Your task to perform on an android device: turn on wifi Image 0: 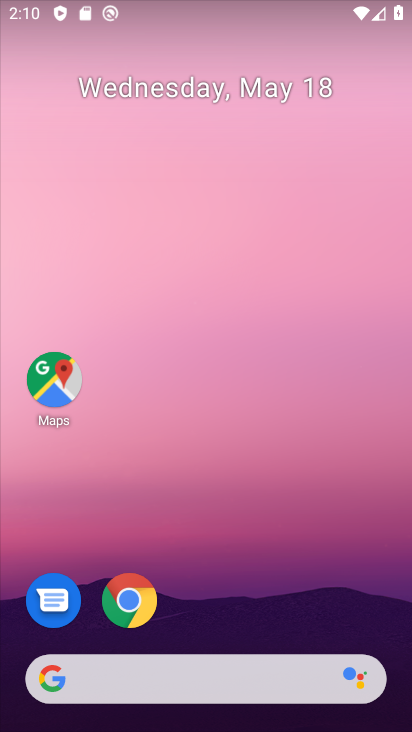
Step 0: press home button
Your task to perform on an android device: turn on wifi Image 1: 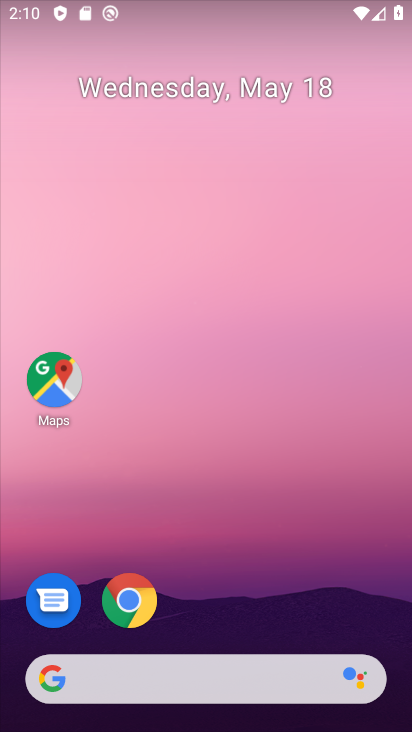
Step 1: drag from (171, 685) to (306, 112)
Your task to perform on an android device: turn on wifi Image 2: 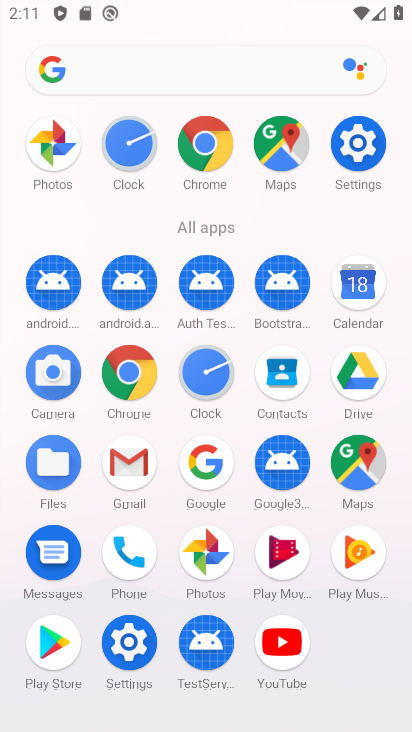
Step 2: click (364, 158)
Your task to perform on an android device: turn on wifi Image 3: 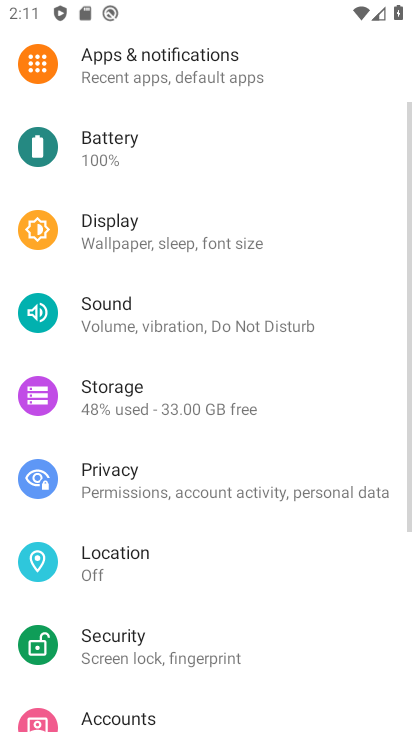
Step 3: drag from (324, 150) to (255, 635)
Your task to perform on an android device: turn on wifi Image 4: 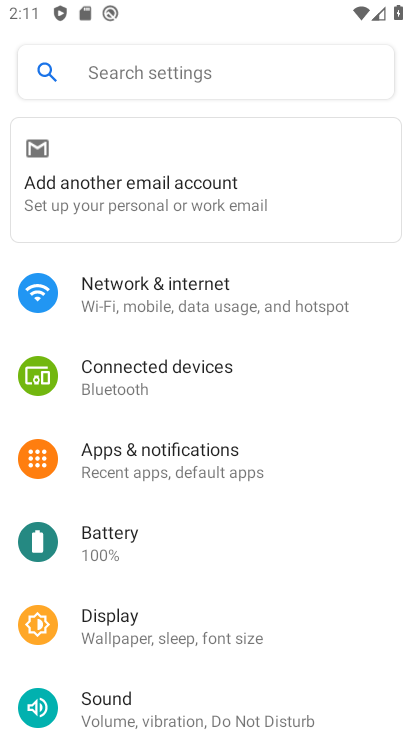
Step 4: click (184, 296)
Your task to perform on an android device: turn on wifi Image 5: 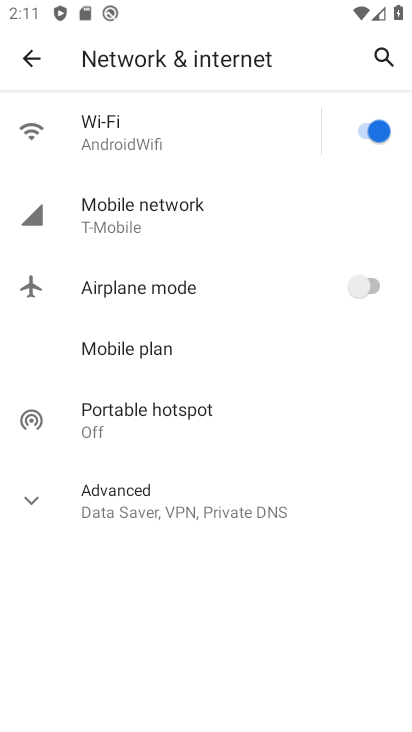
Step 5: task complete